Your task to perform on an android device: Open eBay Image 0: 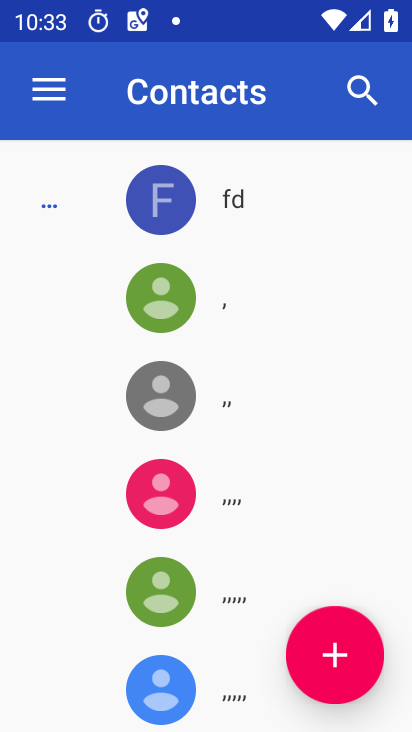
Step 0: press back button
Your task to perform on an android device: Open eBay Image 1: 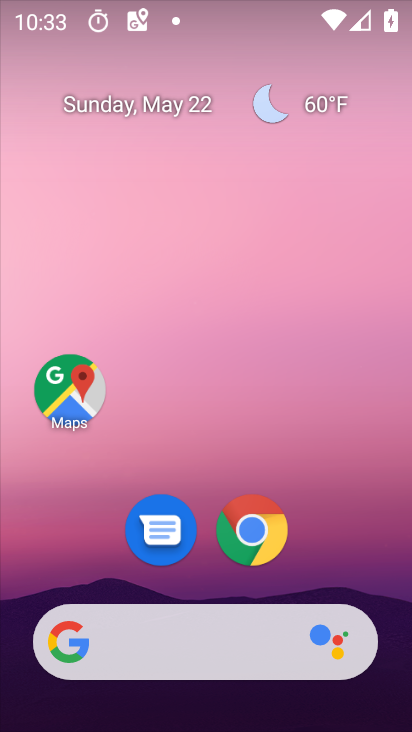
Step 1: drag from (391, 661) to (398, 275)
Your task to perform on an android device: Open eBay Image 2: 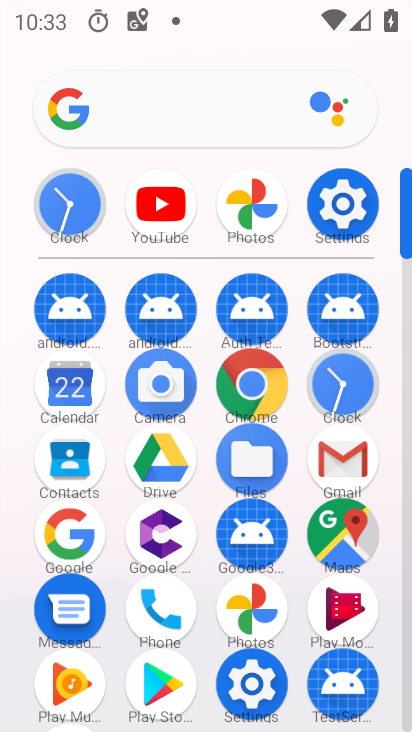
Step 2: click (253, 386)
Your task to perform on an android device: Open eBay Image 3: 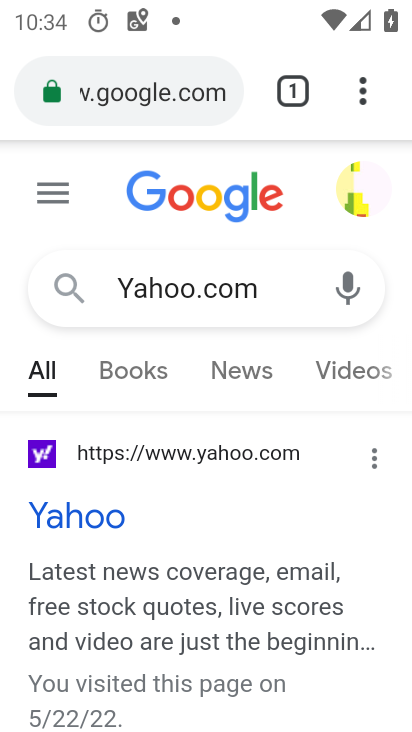
Step 3: click (223, 96)
Your task to perform on an android device: Open eBay Image 4: 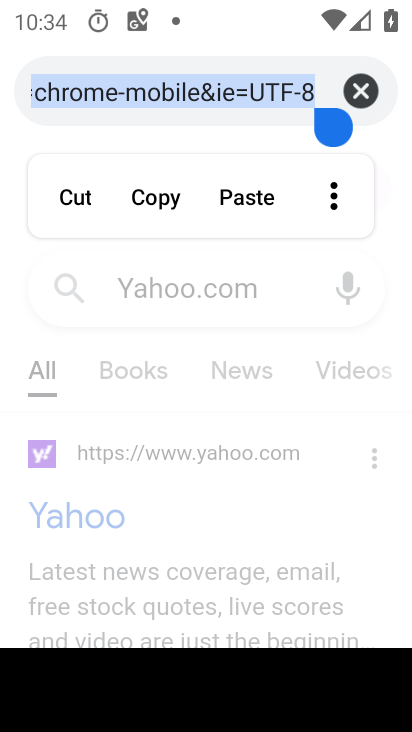
Step 4: click (365, 91)
Your task to perform on an android device: Open eBay Image 5: 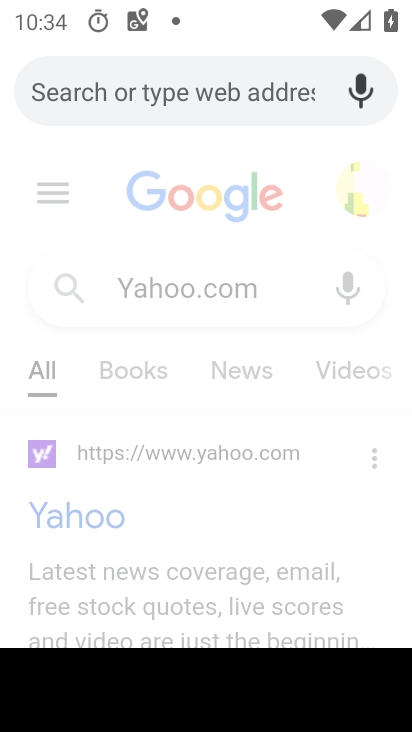
Step 5: type "eBay"
Your task to perform on an android device: Open eBay Image 6: 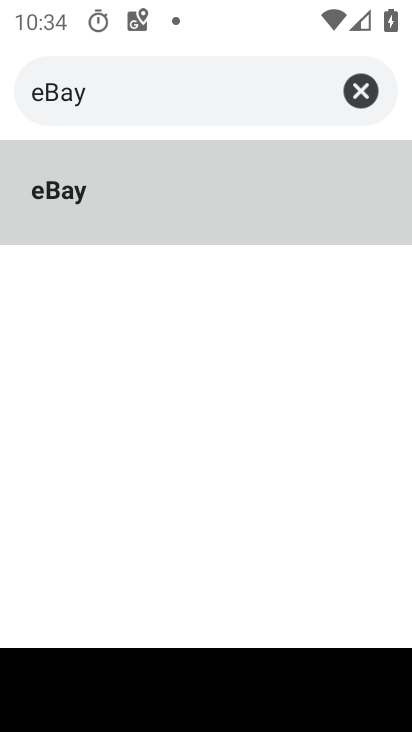
Step 6: click (182, 198)
Your task to perform on an android device: Open eBay Image 7: 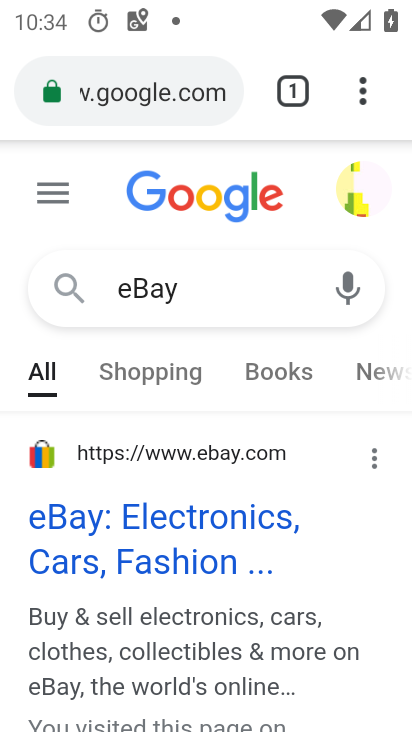
Step 7: task complete